Your task to perform on an android device: open app "Cash App" Image 0: 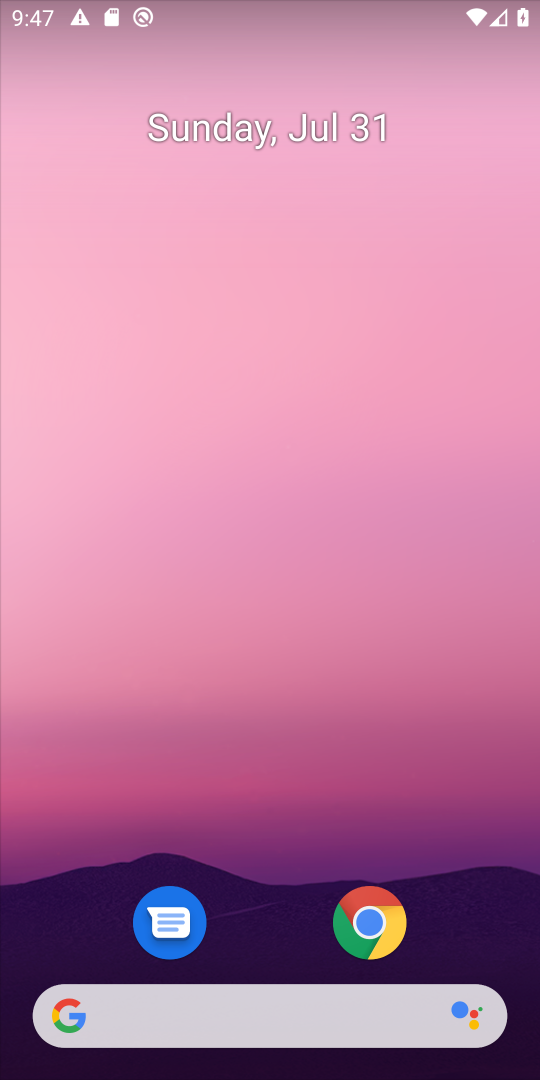
Step 0: drag from (221, 908) to (205, 65)
Your task to perform on an android device: open app "Cash App" Image 1: 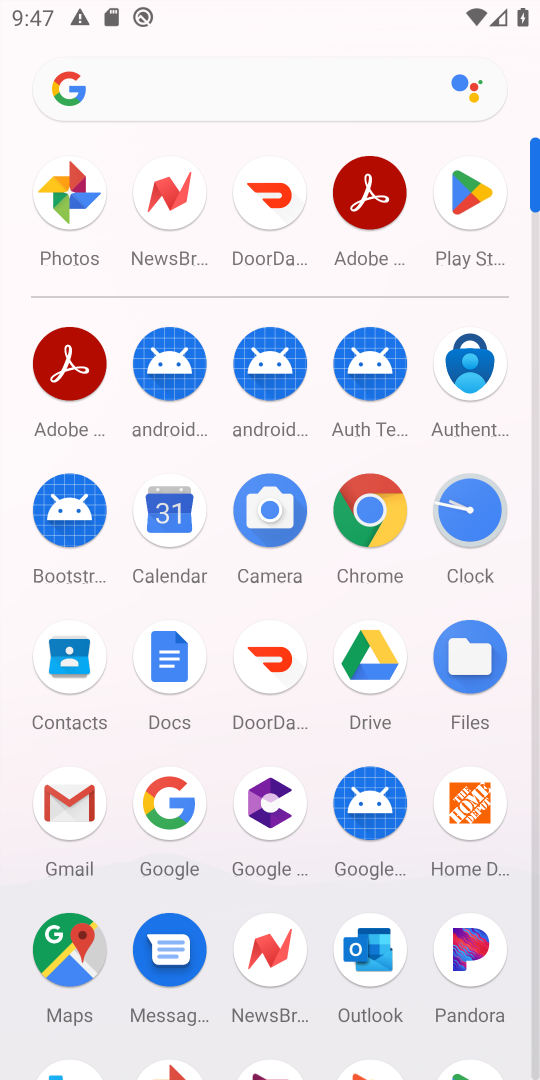
Step 1: drag from (249, 909) to (265, 500)
Your task to perform on an android device: open app "Cash App" Image 2: 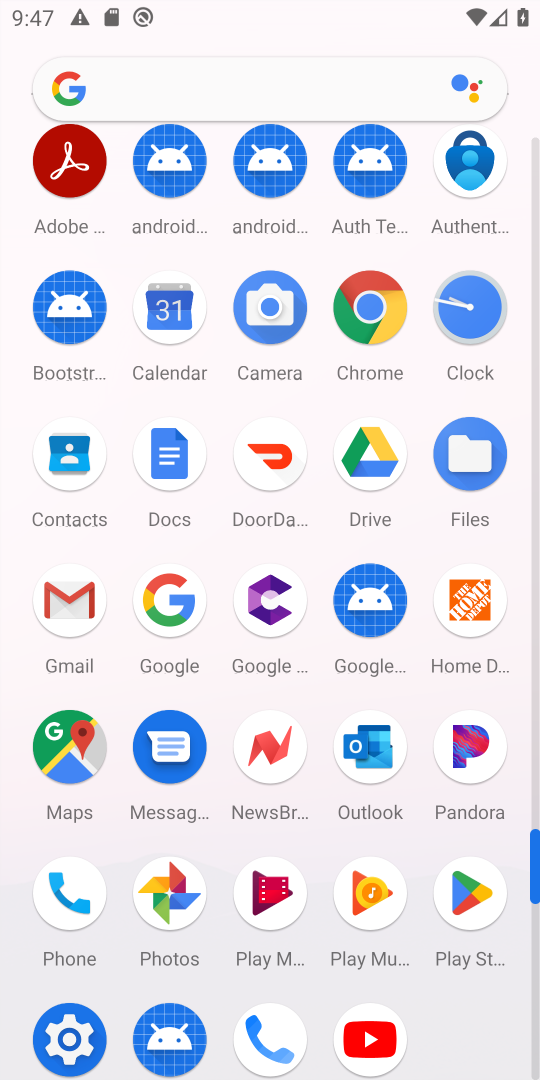
Step 2: click (467, 894)
Your task to perform on an android device: open app "Cash App" Image 3: 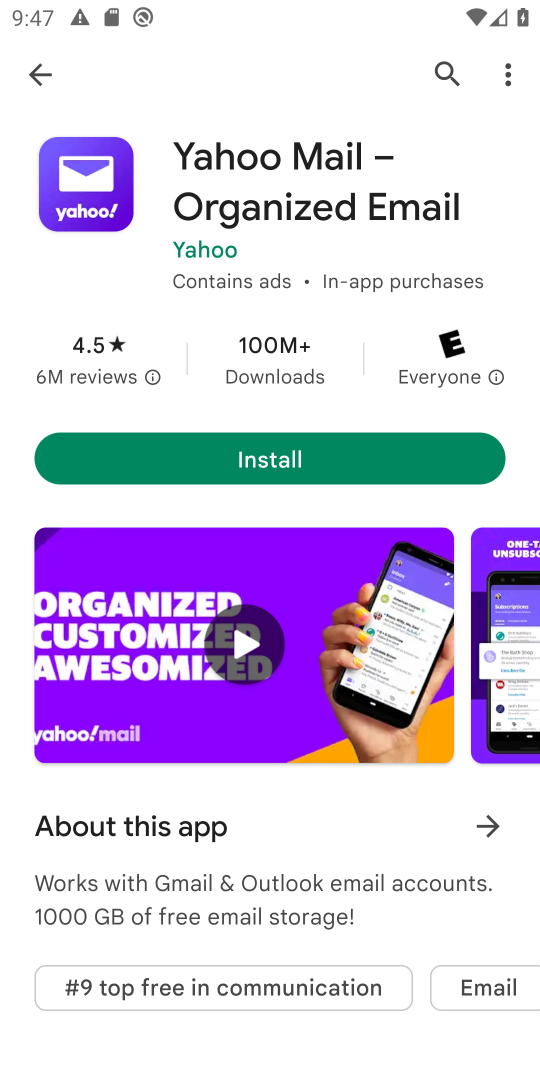
Step 3: click (445, 64)
Your task to perform on an android device: open app "Cash App" Image 4: 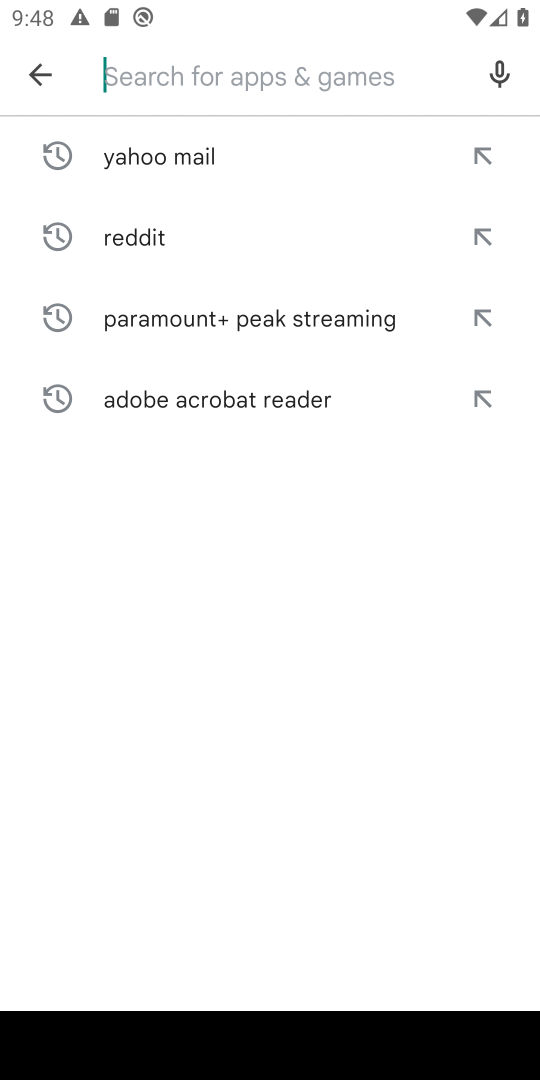
Step 4: type "CashApp"
Your task to perform on an android device: open app "Cash App" Image 5: 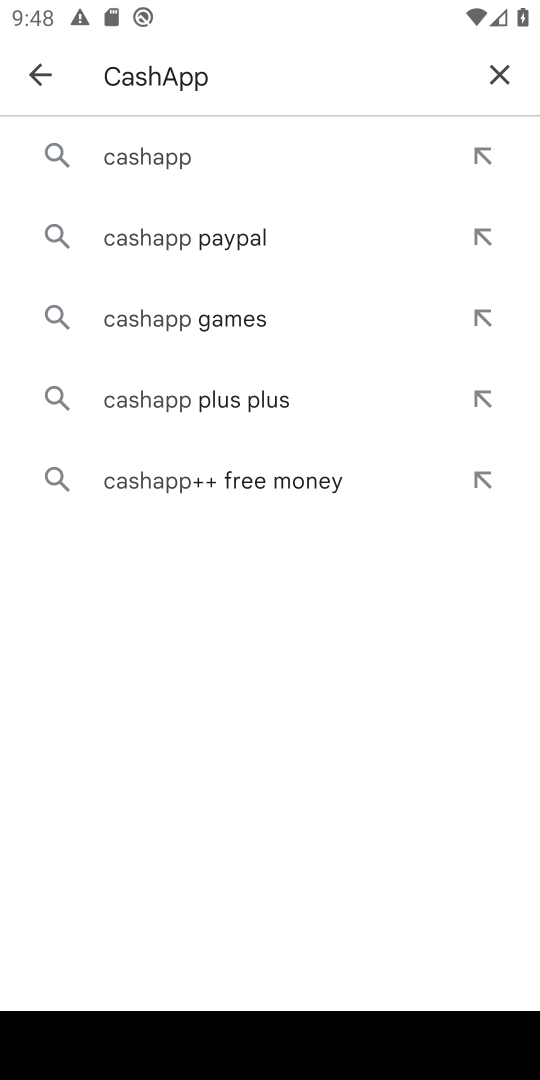
Step 5: click (122, 153)
Your task to perform on an android device: open app "Cash App" Image 6: 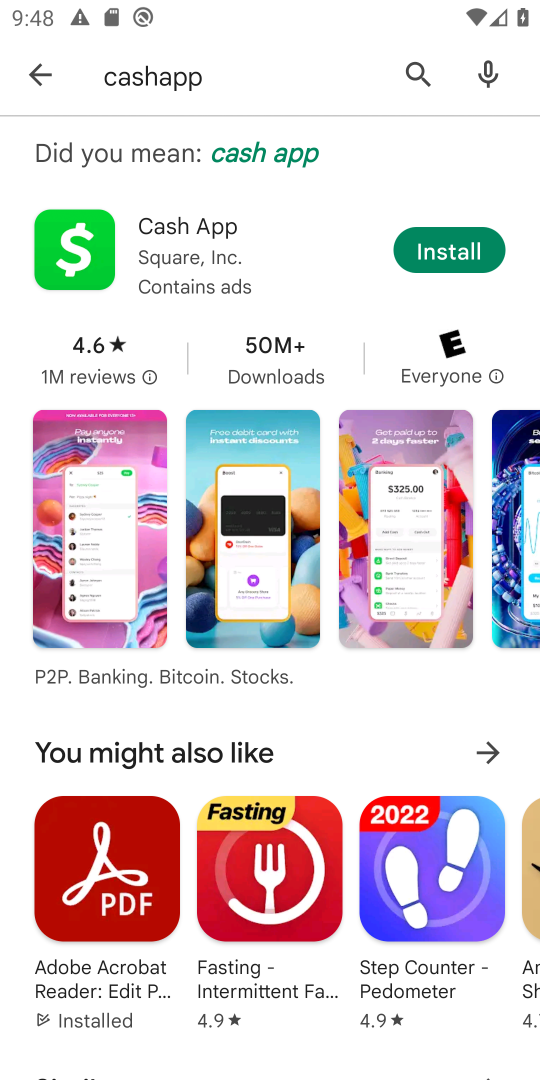
Step 6: task complete